Your task to perform on an android device: turn off notifications in google photos Image 0: 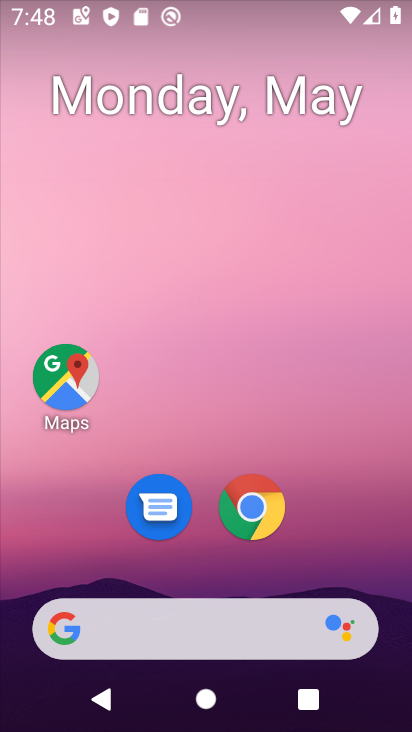
Step 0: drag from (225, 584) to (257, 49)
Your task to perform on an android device: turn off notifications in google photos Image 1: 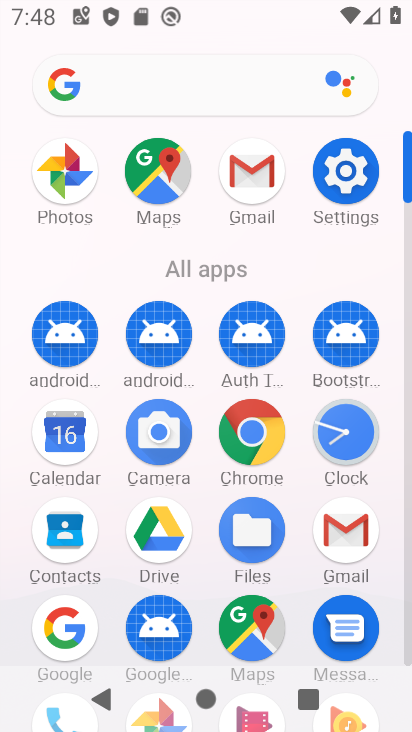
Step 1: drag from (203, 581) to (228, 114)
Your task to perform on an android device: turn off notifications in google photos Image 2: 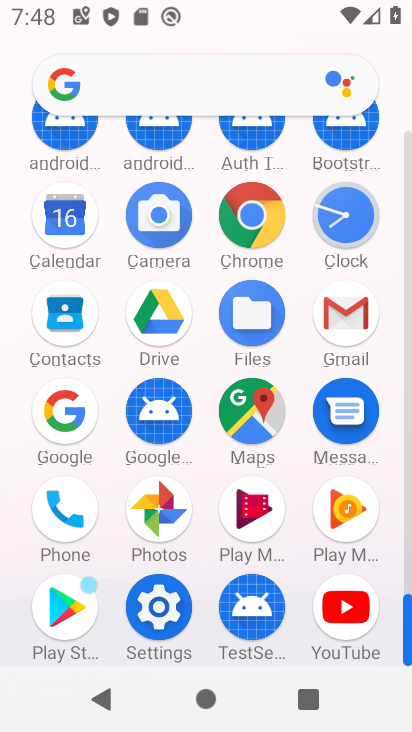
Step 2: click (159, 504)
Your task to perform on an android device: turn off notifications in google photos Image 3: 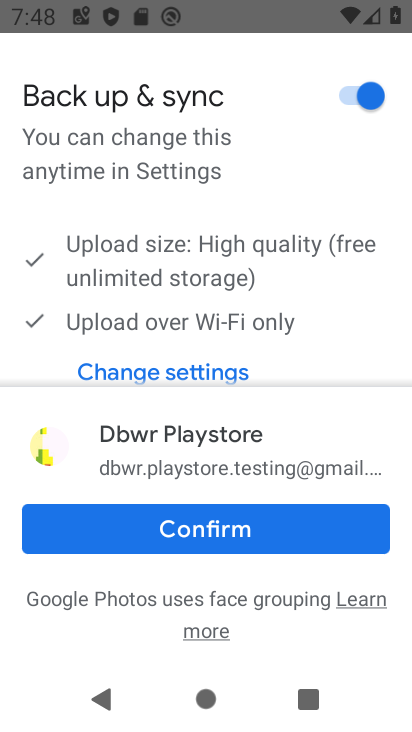
Step 3: click (211, 528)
Your task to perform on an android device: turn off notifications in google photos Image 4: 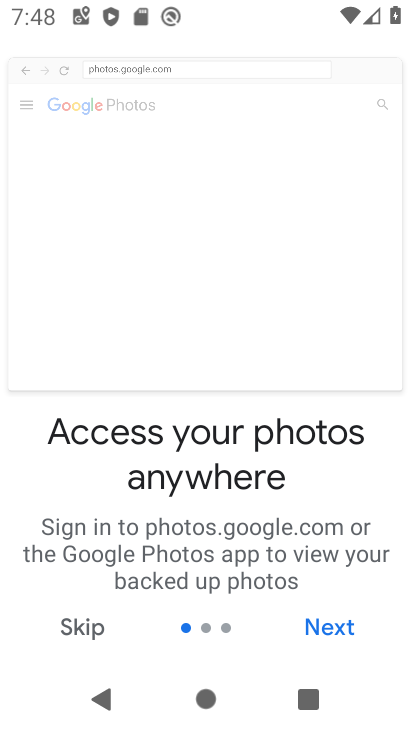
Step 4: click (332, 621)
Your task to perform on an android device: turn off notifications in google photos Image 5: 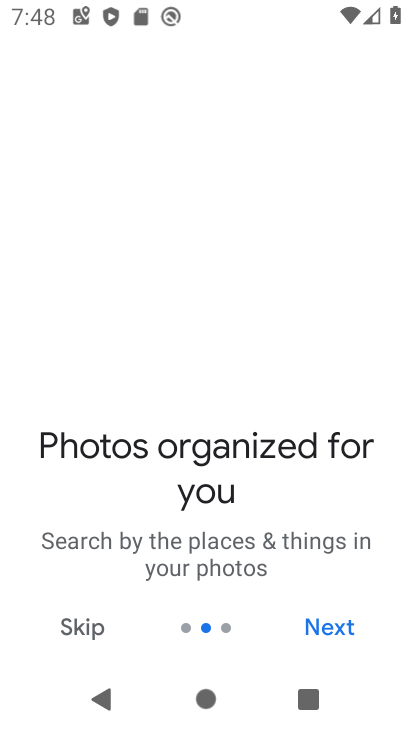
Step 5: click (338, 626)
Your task to perform on an android device: turn off notifications in google photos Image 6: 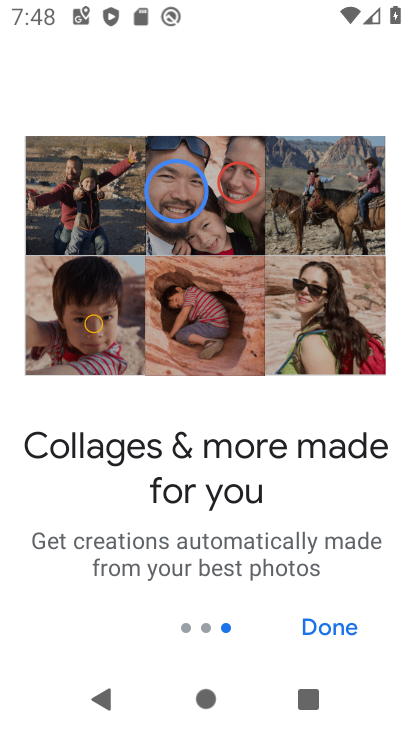
Step 6: click (338, 626)
Your task to perform on an android device: turn off notifications in google photos Image 7: 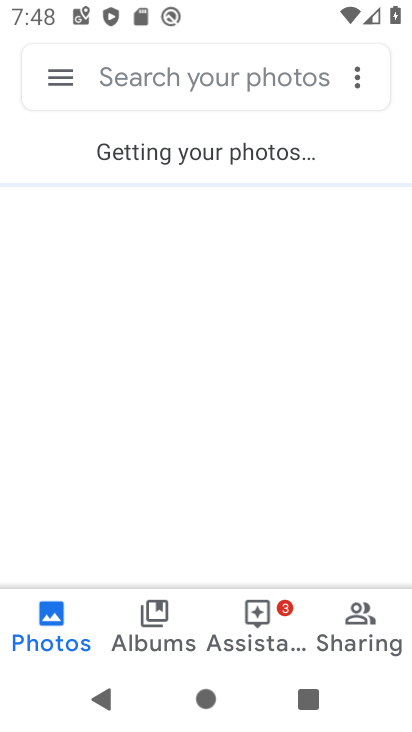
Step 7: click (60, 68)
Your task to perform on an android device: turn off notifications in google photos Image 8: 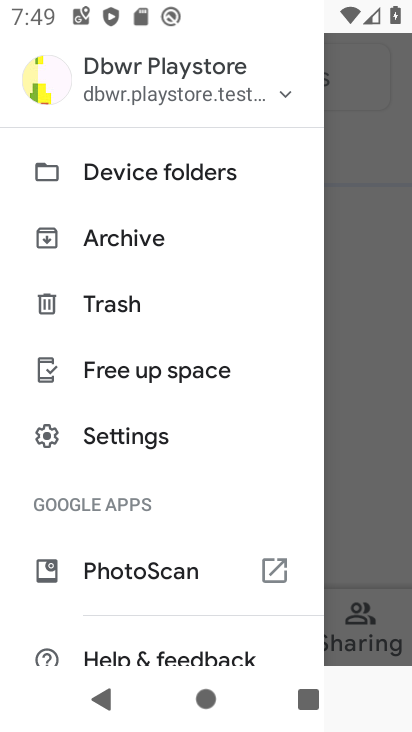
Step 8: click (172, 435)
Your task to perform on an android device: turn off notifications in google photos Image 9: 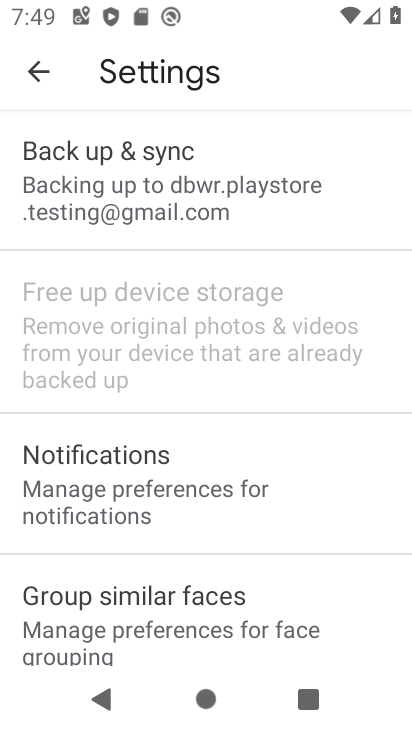
Step 9: click (186, 462)
Your task to perform on an android device: turn off notifications in google photos Image 10: 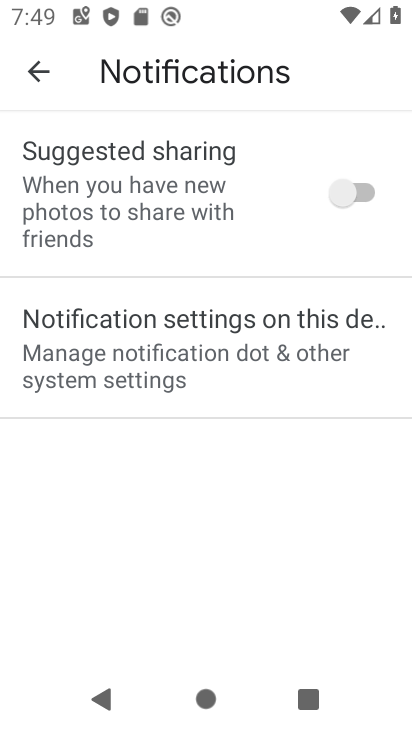
Step 10: click (201, 387)
Your task to perform on an android device: turn off notifications in google photos Image 11: 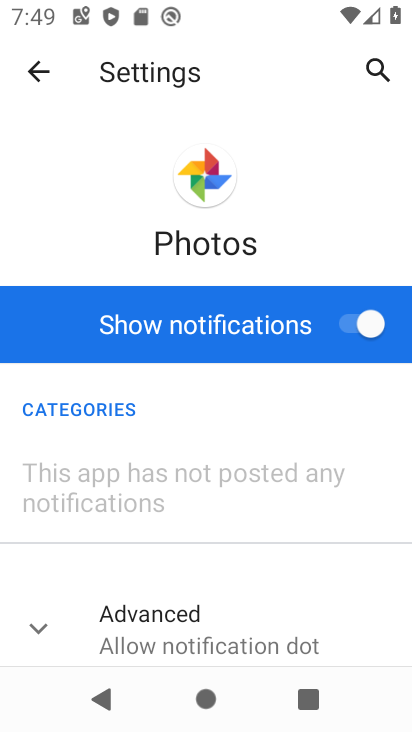
Step 11: click (351, 324)
Your task to perform on an android device: turn off notifications in google photos Image 12: 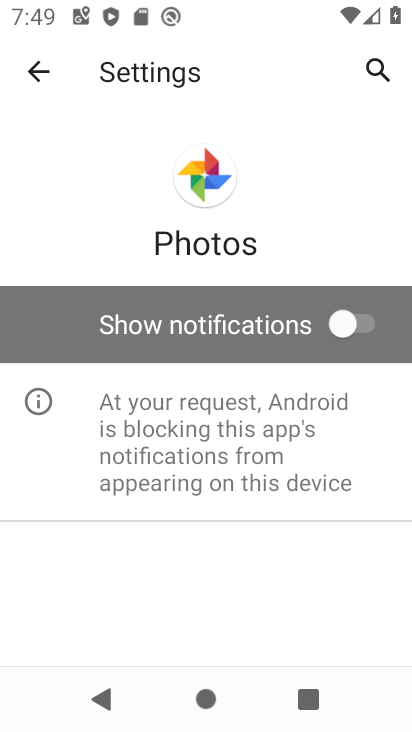
Step 12: task complete